Your task to perform on an android device: Go to sound settings Image 0: 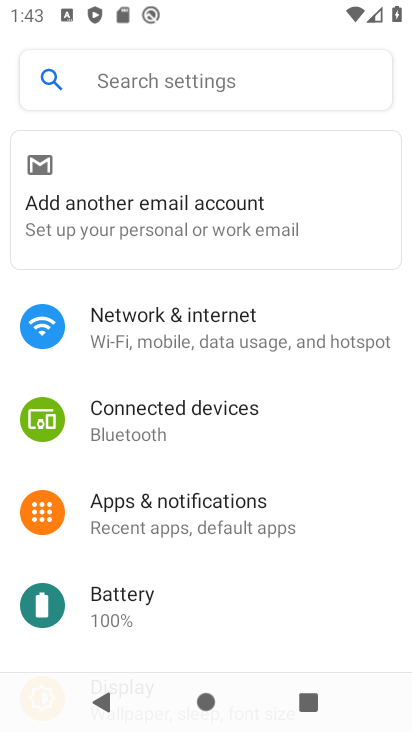
Step 0: drag from (171, 424) to (244, 141)
Your task to perform on an android device: Go to sound settings Image 1: 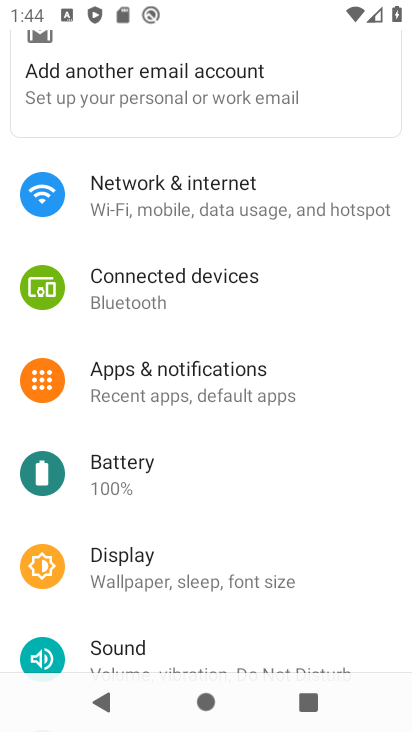
Step 1: drag from (161, 517) to (284, 135)
Your task to perform on an android device: Go to sound settings Image 2: 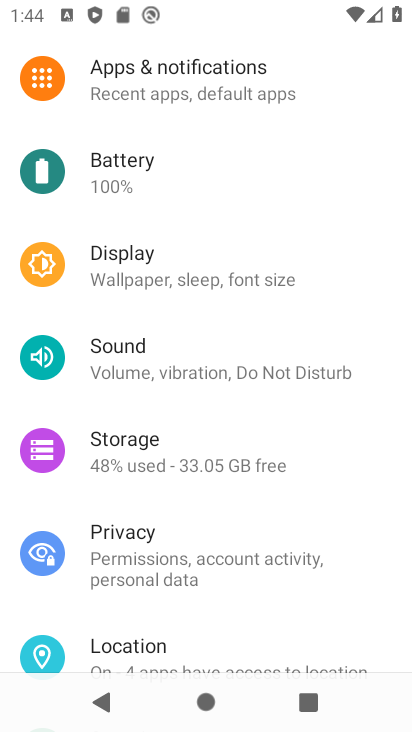
Step 2: drag from (237, 490) to (279, 251)
Your task to perform on an android device: Go to sound settings Image 3: 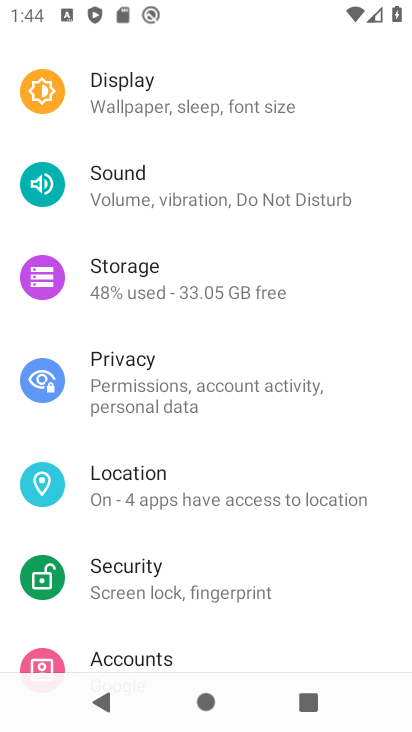
Step 3: click (114, 194)
Your task to perform on an android device: Go to sound settings Image 4: 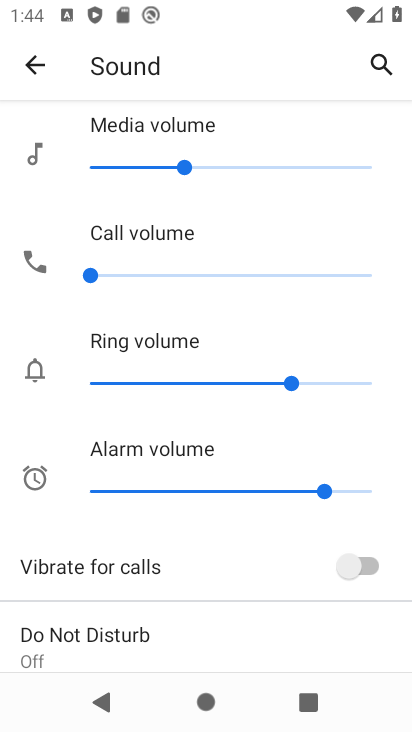
Step 4: task complete